Your task to perform on an android device: What is the recent news? Image 0: 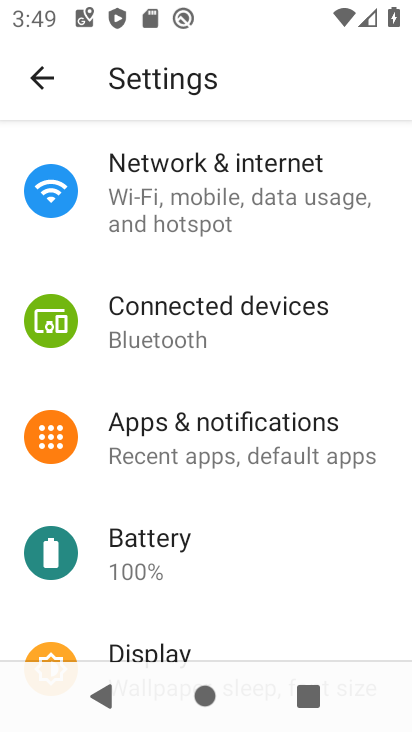
Step 0: press back button
Your task to perform on an android device: What is the recent news? Image 1: 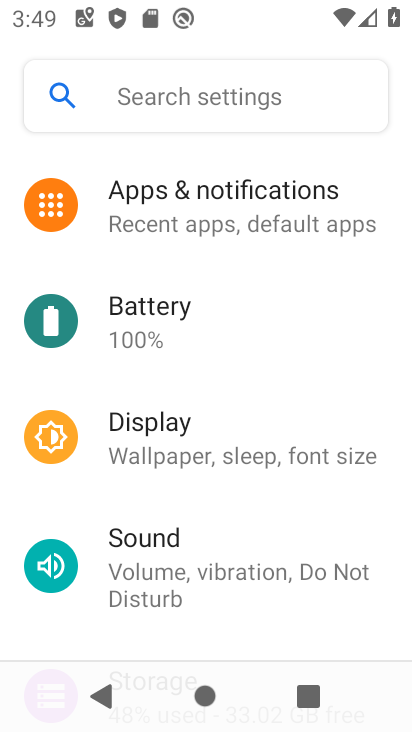
Step 1: press back button
Your task to perform on an android device: What is the recent news? Image 2: 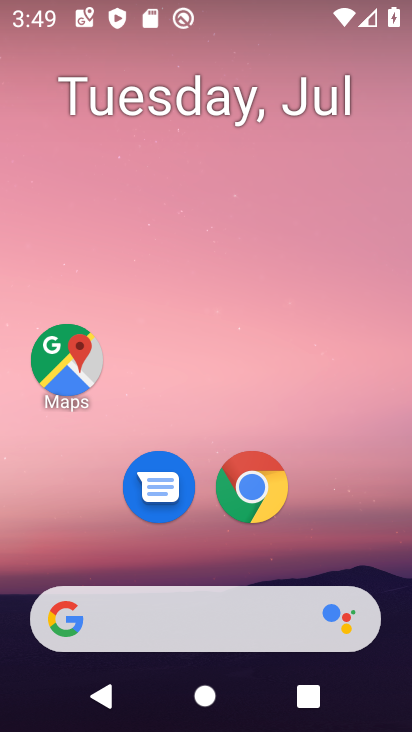
Step 2: click (151, 626)
Your task to perform on an android device: What is the recent news? Image 3: 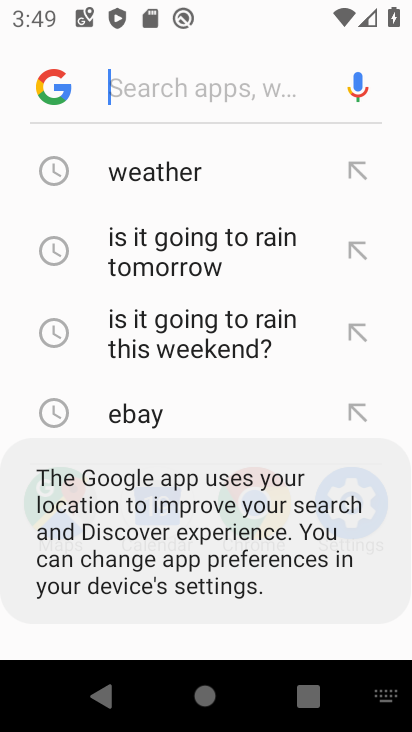
Step 3: click (171, 72)
Your task to perform on an android device: What is the recent news? Image 4: 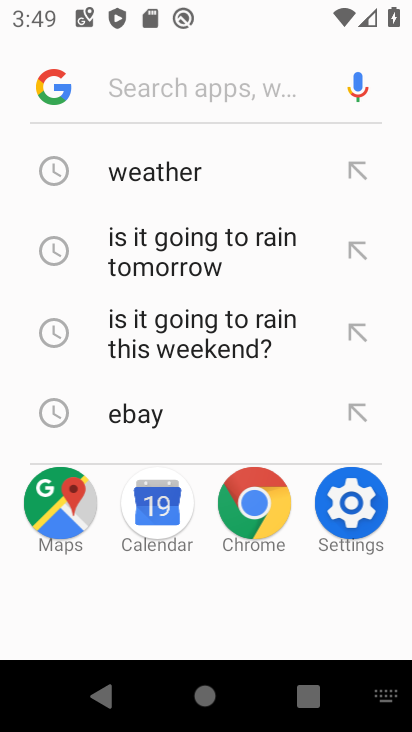
Step 4: type "recent news"
Your task to perform on an android device: What is the recent news? Image 5: 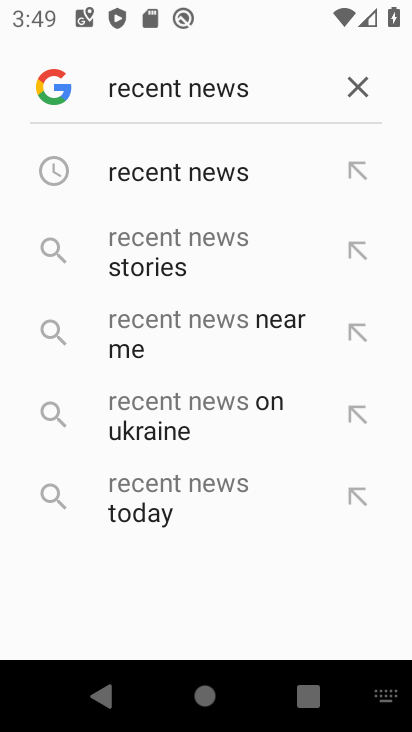
Step 5: click (165, 169)
Your task to perform on an android device: What is the recent news? Image 6: 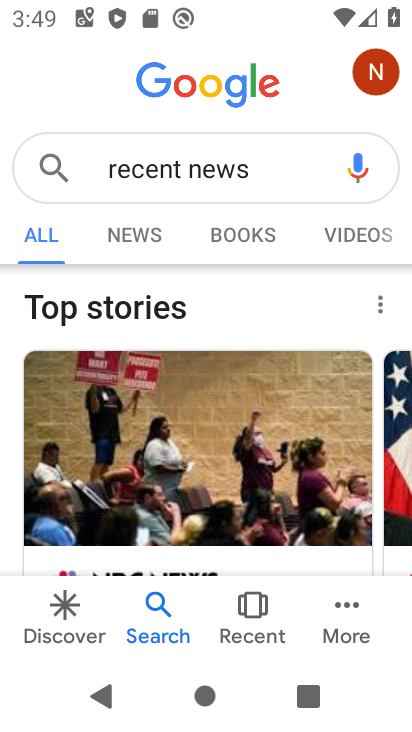
Step 6: task complete